Your task to perform on an android device: How much does a 3 bedroom apartment rent for in Washington DC? Image 0: 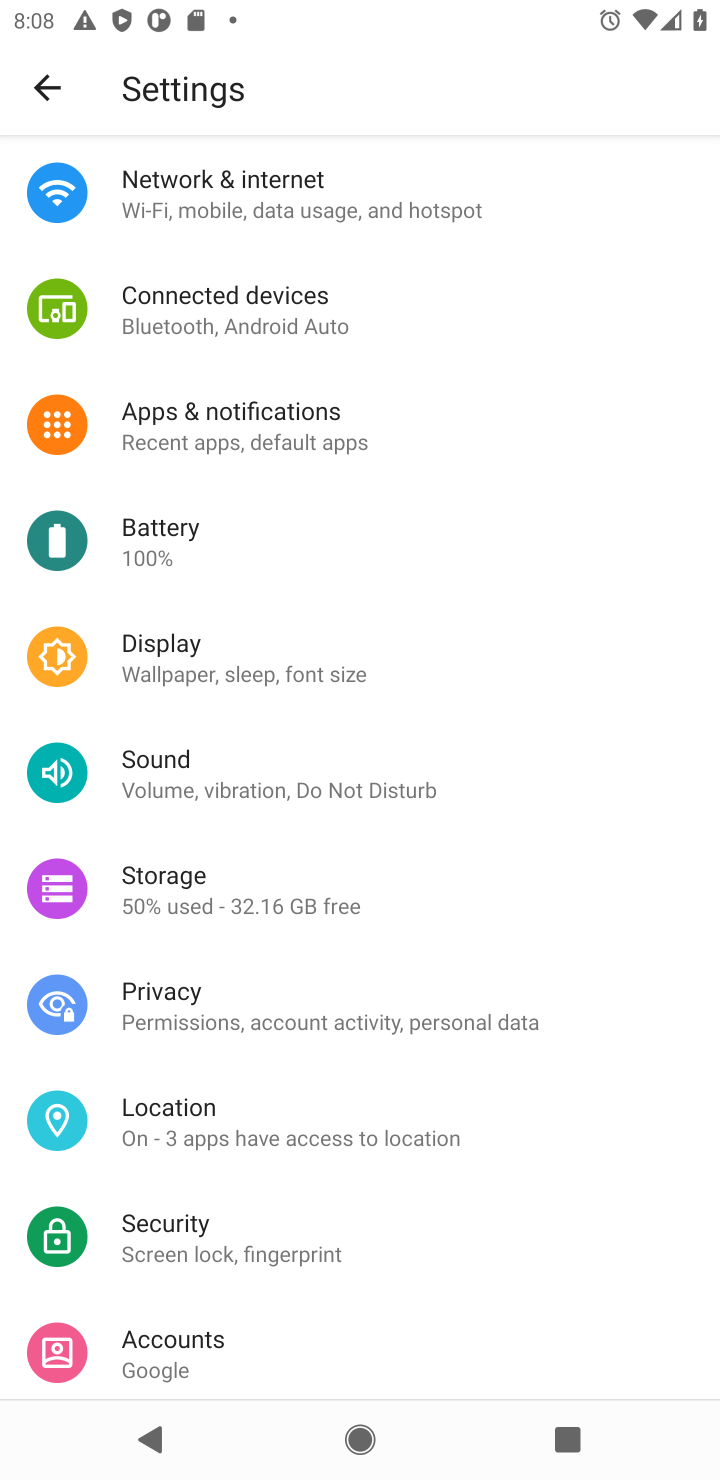
Step 0: press home button
Your task to perform on an android device: How much does a 3 bedroom apartment rent for in Washington DC? Image 1: 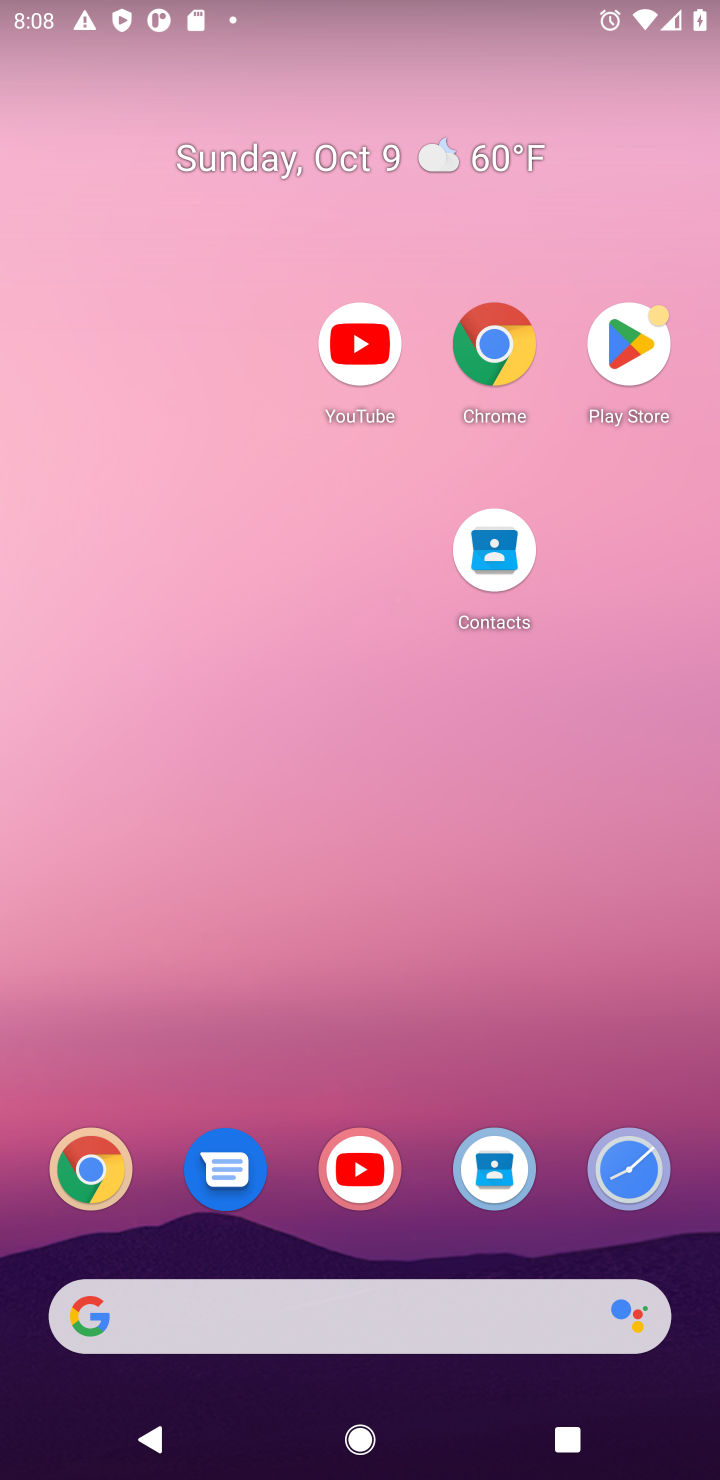
Step 1: drag from (423, 1263) to (355, 240)
Your task to perform on an android device: How much does a 3 bedroom apartment rent for in Washington DC? Image 2: 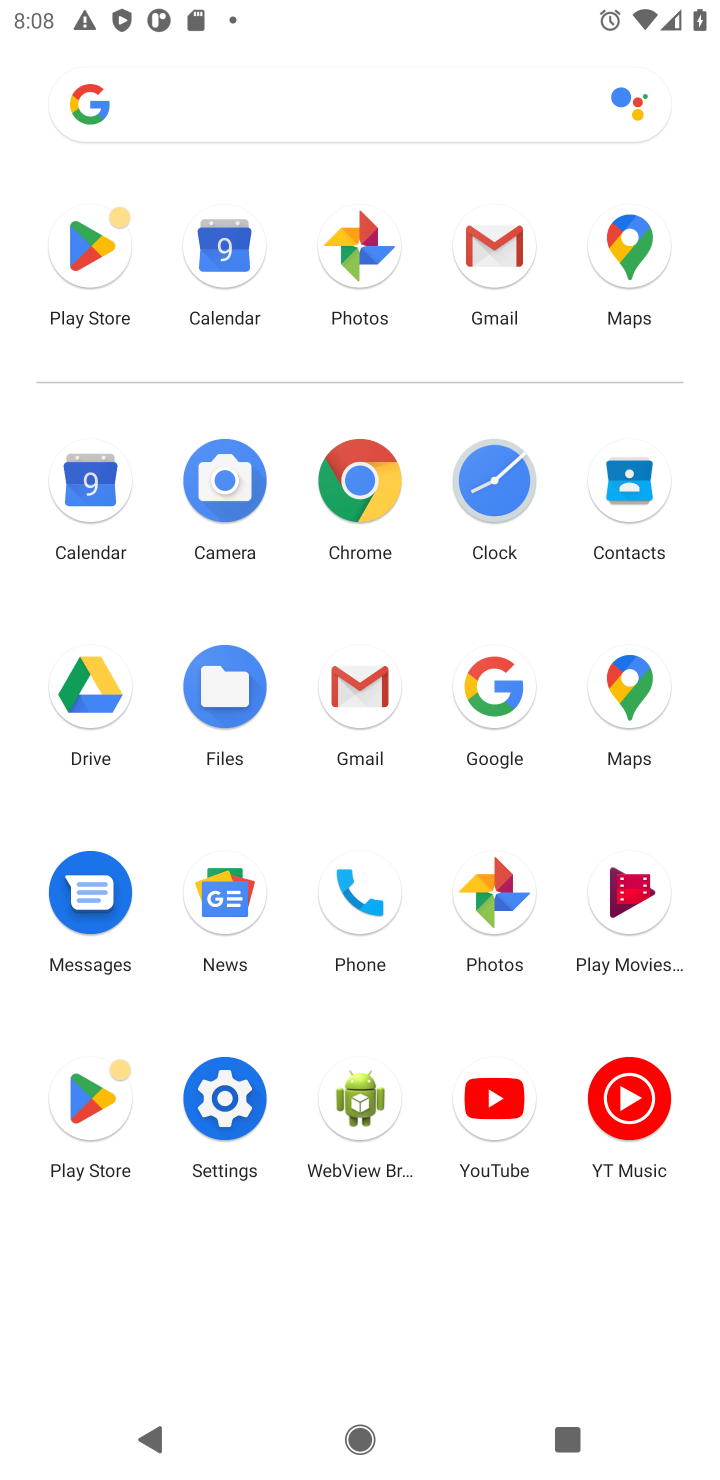
Step 2: click (361, 482)
Your task to perform on an android device: How much does a 3 bedroom apartment rent for in Washington DC? Image 3: 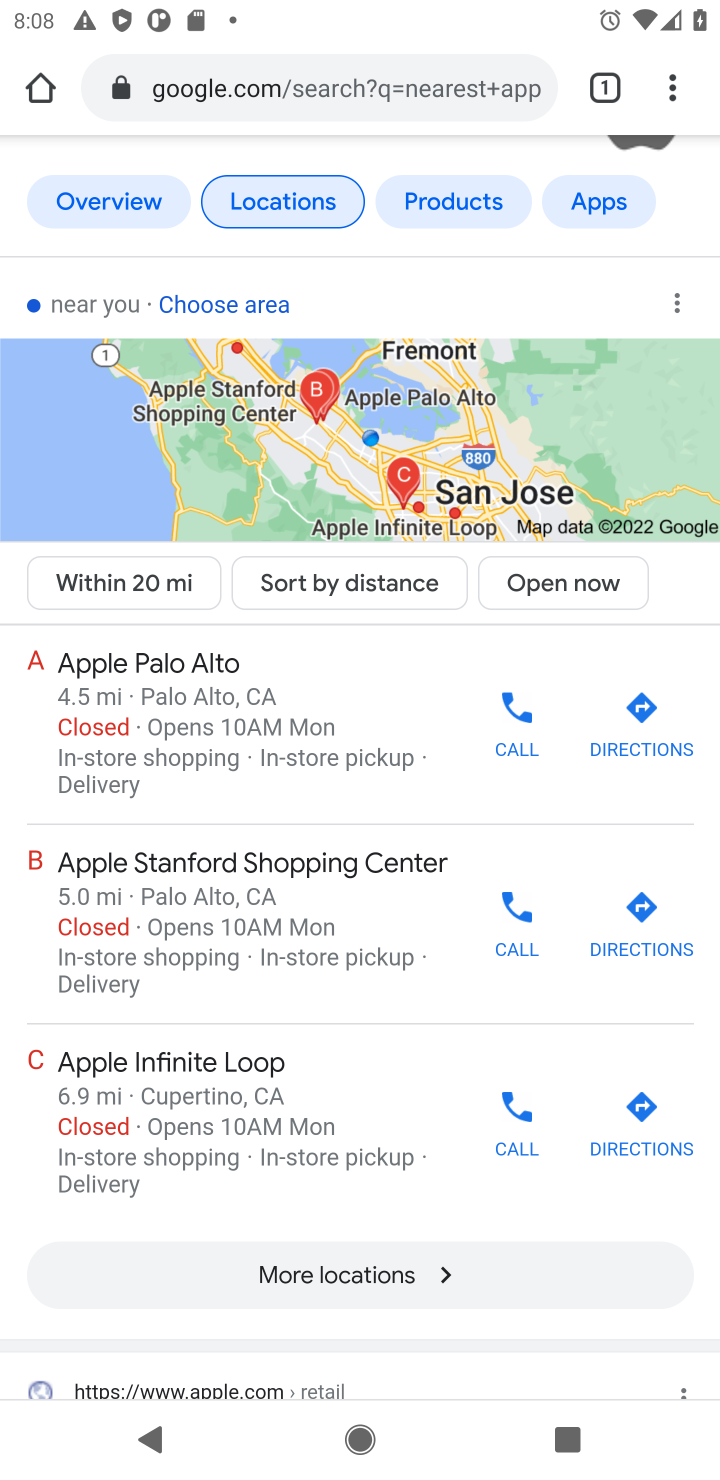
Step 3: click (329, 78)
Your task to perform on an android device: How much does a 3 bedroom apartment rent for in Washington DC? Image 4: 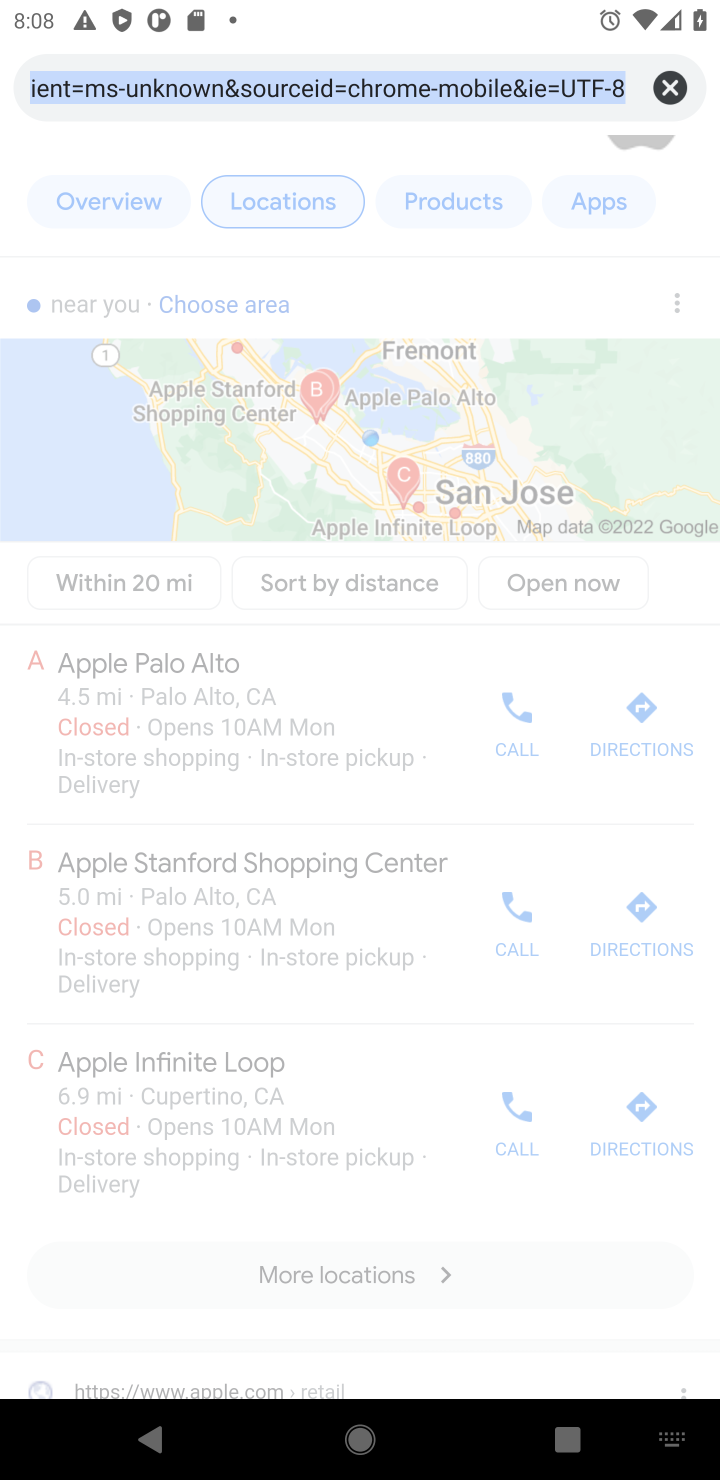
Step 4: type "How much does a 3 bedroom apartment rent in Washington dc"
Your task to perform on an android device: How much does a 3 bedroom apartment rent for in Washington DC? Image 5: 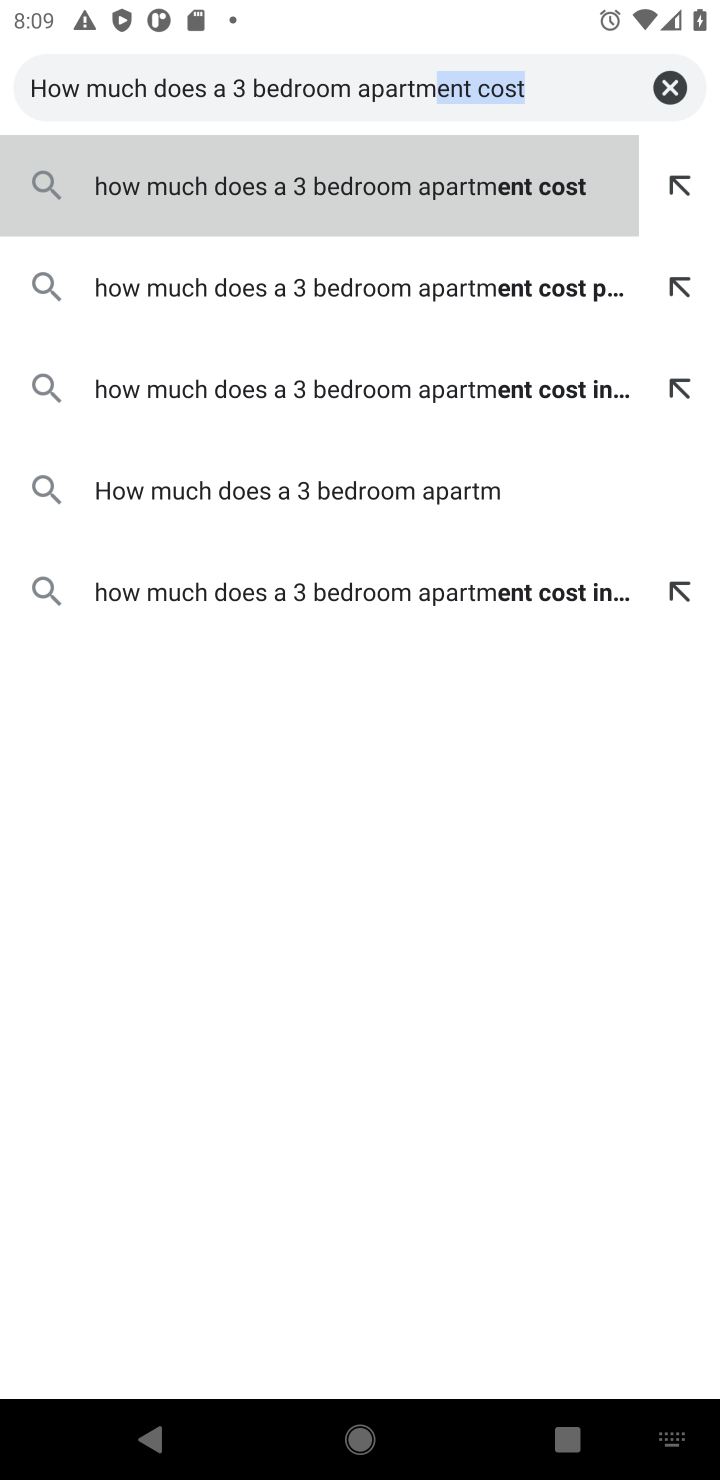
Step 5: type "ent rest for Washington DC?"
Your task to perform on an android device: How much does a 3 bedroom apartment rent for in Washington DC? Image 6: 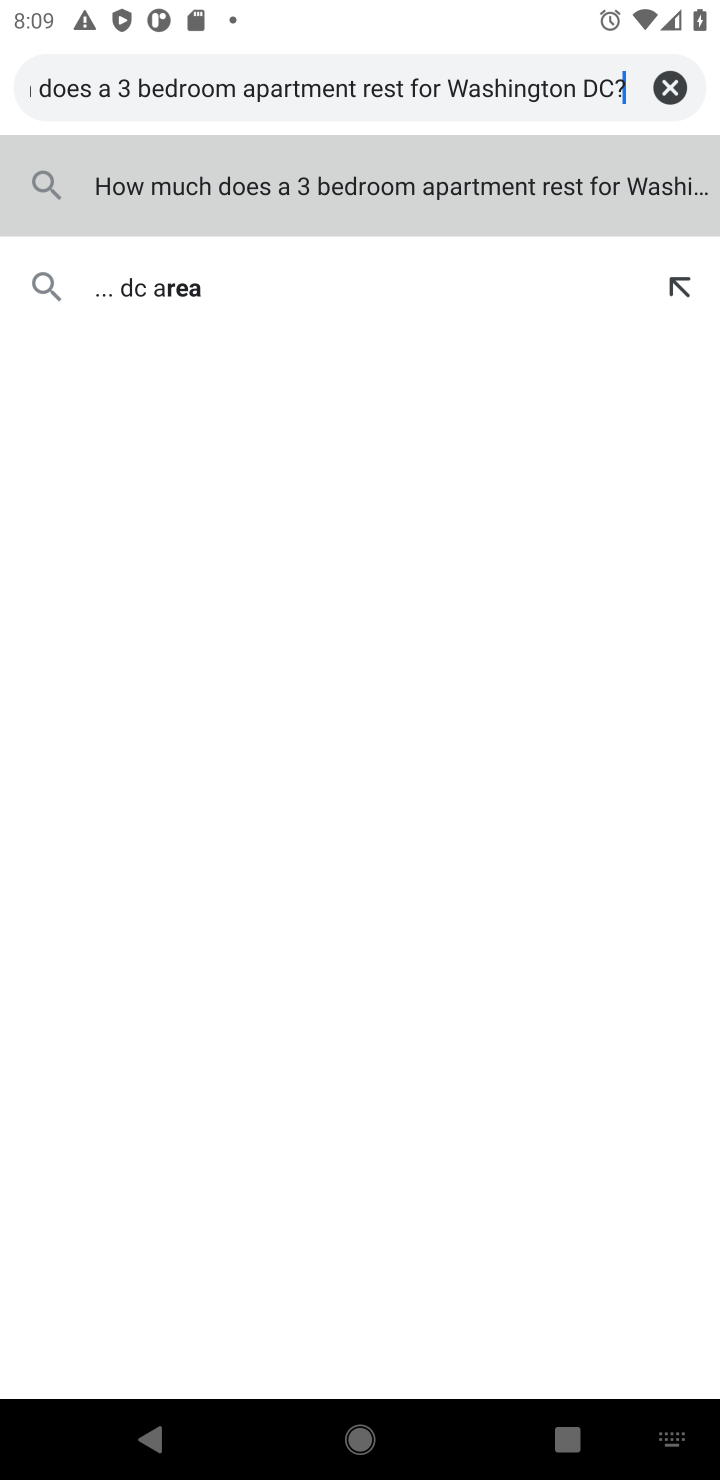
Step 6: press enter
Your task to perform on an android device: How much does a 3 bedroom apartment rent for in Washington DC? Image 7: 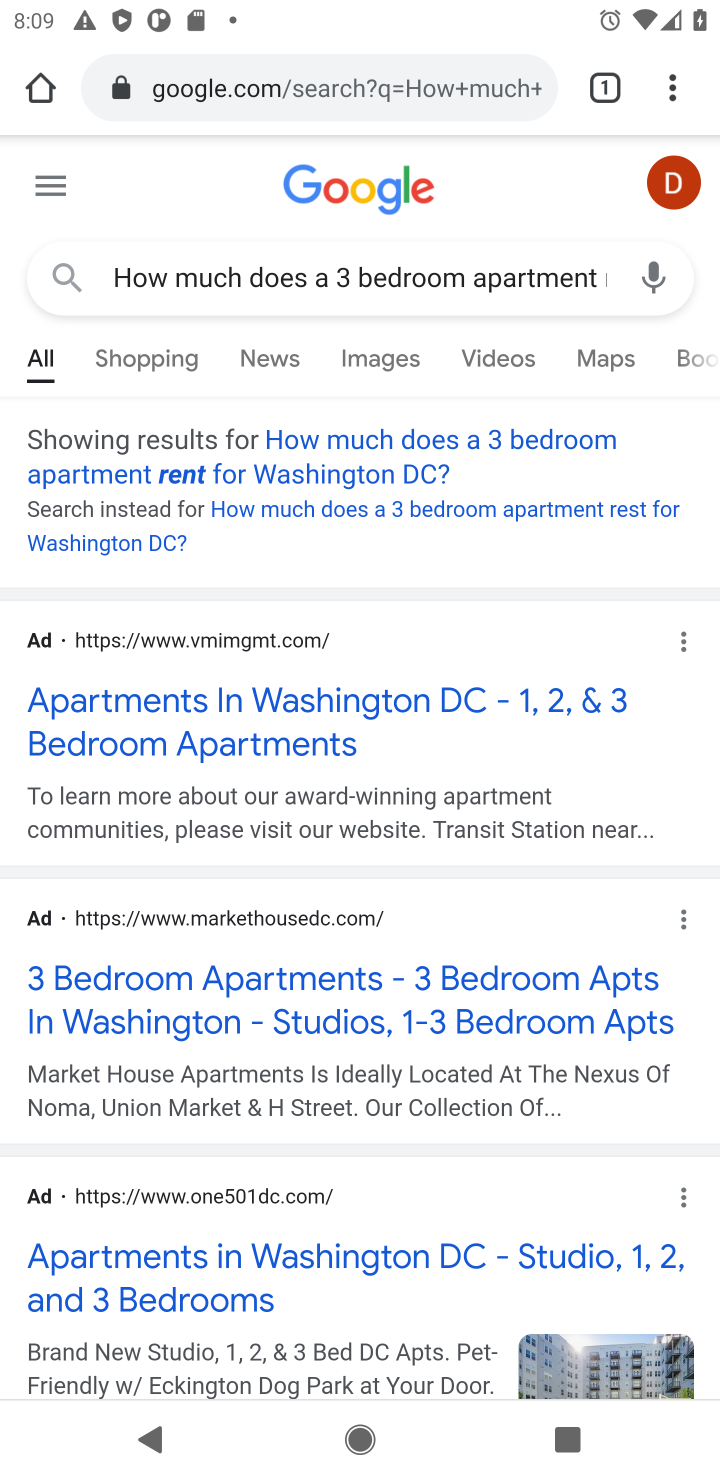
Step 7: drag from (358, 1303) to (347, 1112)
Your task to perform on an android device: How much does a 3 bedroom apartment rent for in Washington DC? Image 8: 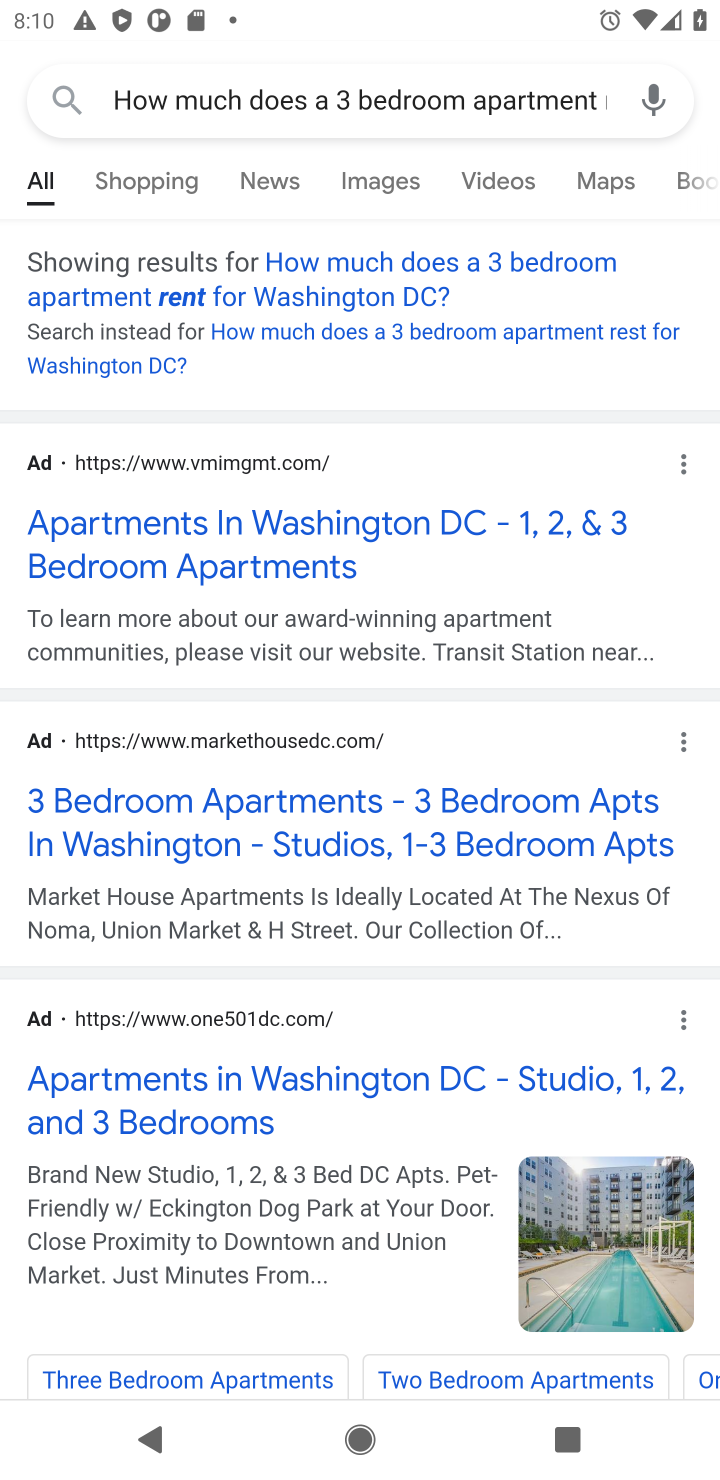
Step 8: click (344, 266)
Your task to perform on an android device: How much does a 3 bedroom apartment rent for in Washington DC? Image 9: 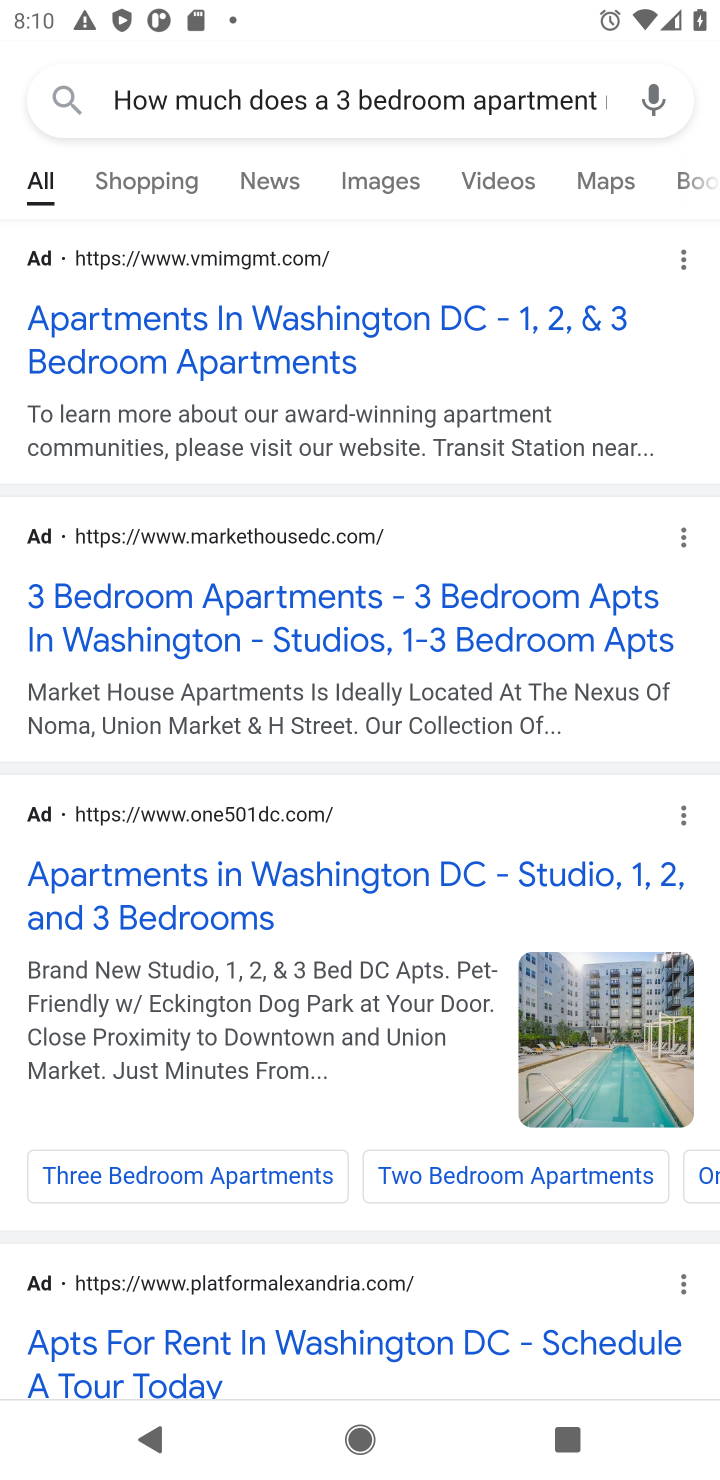
Step 9: task complete